Your task to perform on an android device: change your default location settings in chrome Image 0: 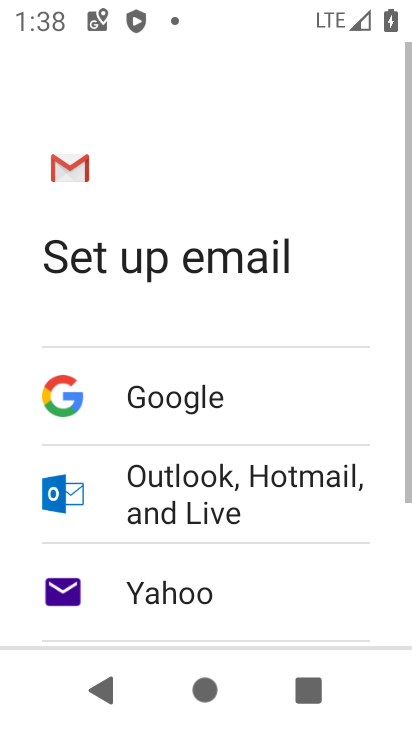
Step 0: press home button
Your task to perform on an android device: change your default location settings in chrome Image 1: 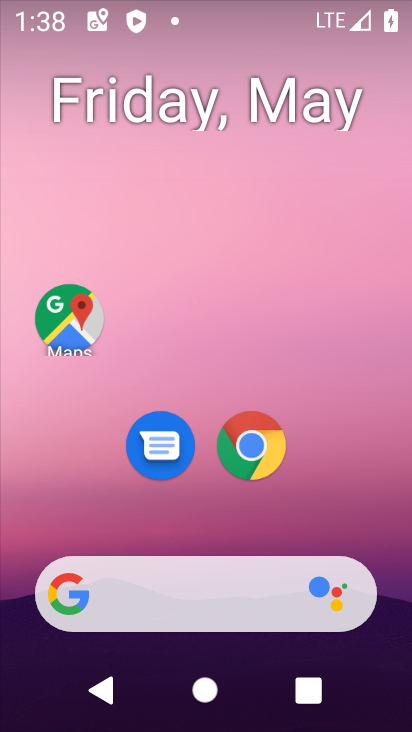
Step 1: click (251, 443)
Your task to perform on an android device: change your default location settings in chrome Image 2: 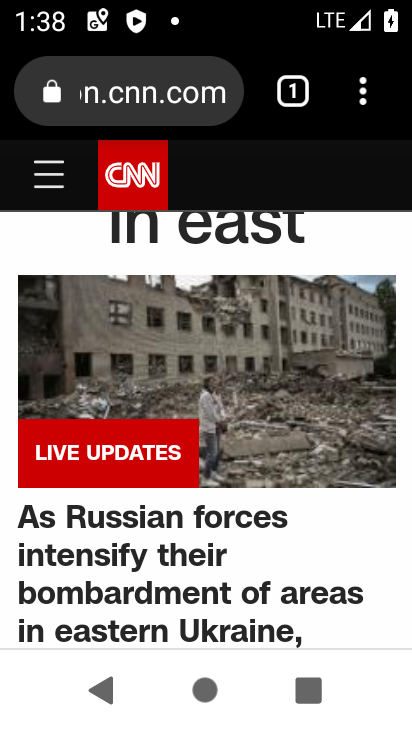
Step 2: click (364, 90)
Your task to perform on an android device: change your default location settings in chrome Image 3: 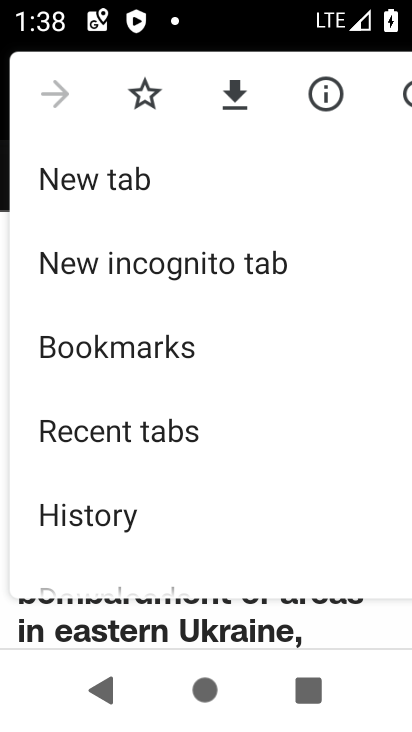
Step 3: drag from (229, 522) to (226, 114)
Your task to perform on an android device: change your default location settings in chrome Image 4: 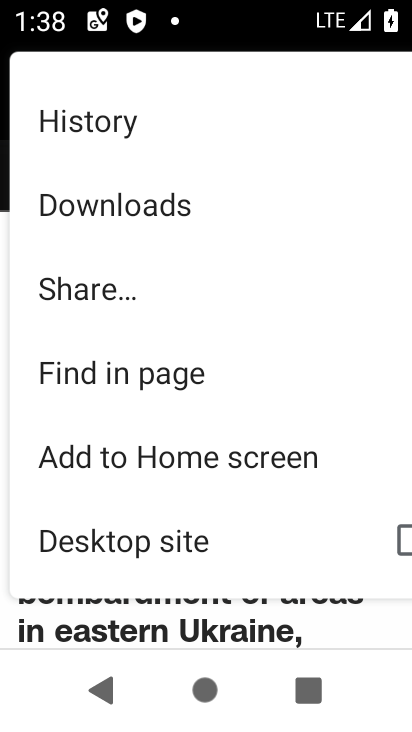
Step 4: drag from (214, 556) to (207, 138)
Your task to perform on an android device: change your default location settings in chrome Image 5: 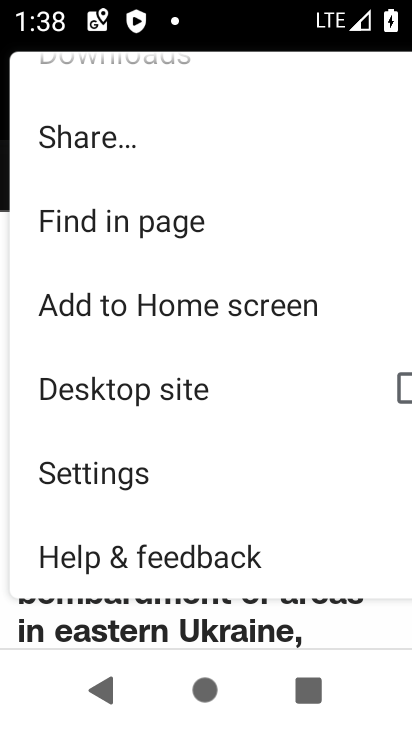
Step 5: click (165, 472)
Your task to perform on an android device: change your default location settings in chrome Image 6: 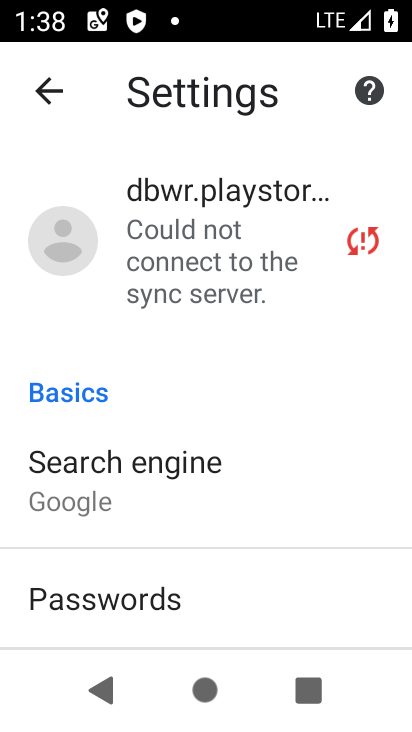
Step 6: drag from (203, 592) to (241, 117)
Your task to perform on an android device: change your default location settings in chrome Image 7: 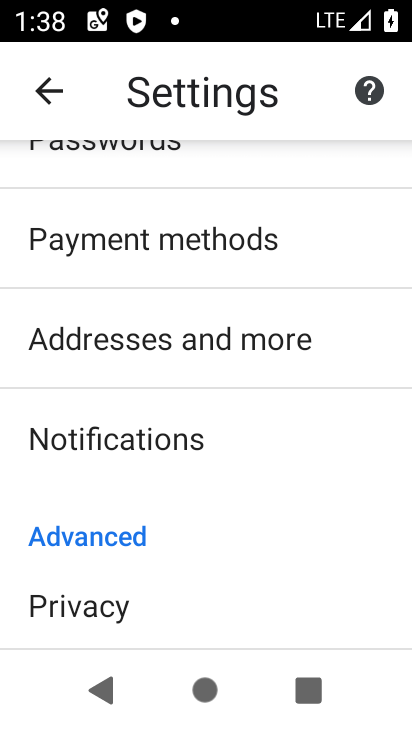
Step 7: drag from (189, 563) to (220, 211)
Your task to perform on an android device: change your default location settings in chrome Image 8: 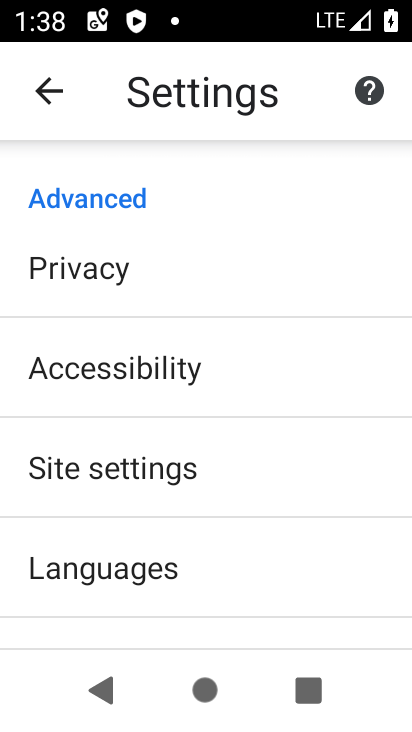
Step 8: click (211, 465)
Your task to perform on an android device: change your default location settings in chrome Image 9: 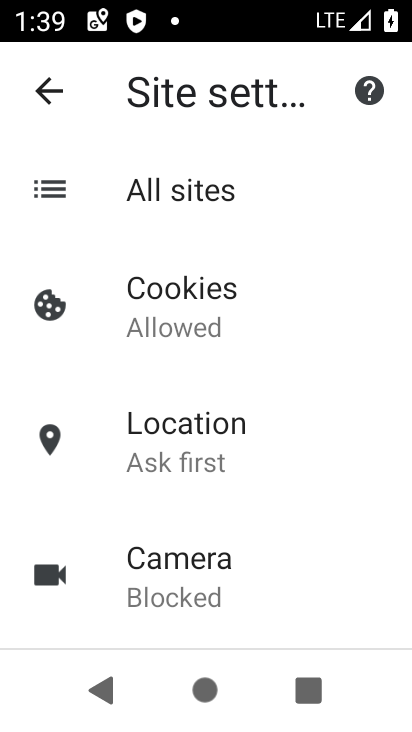
Step 9: click (107, 441)
Your task to perform on an android device: change your default location settings in chrome Image 10: 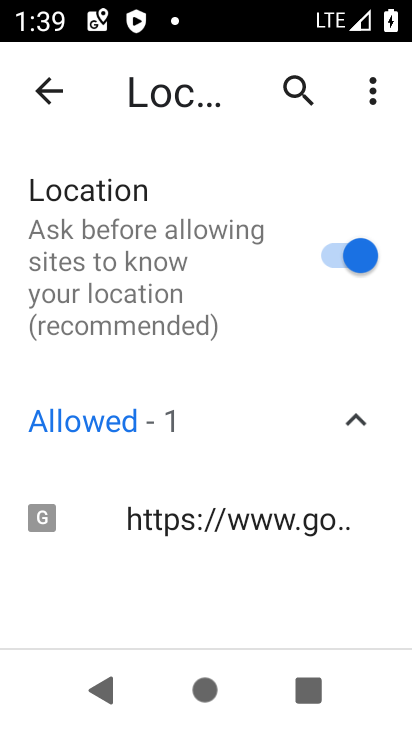
Step 10: click (334, 247)
Your task to perform on an android device: change your default location settings in chrome Image 11: 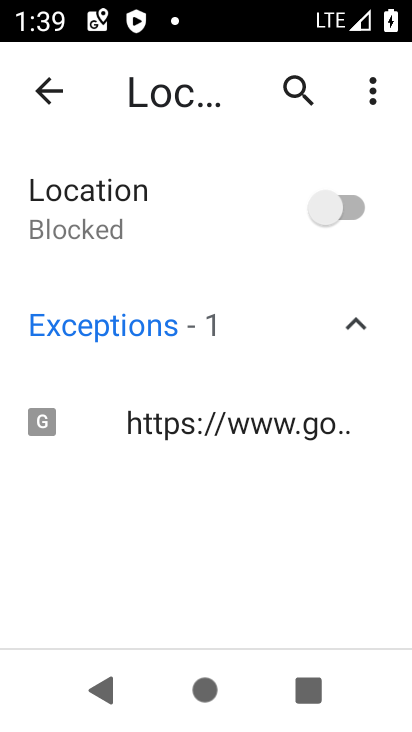
Step 11: task complete